Your task to perform on an android device: turn on javascript in the chrome app Image 0: 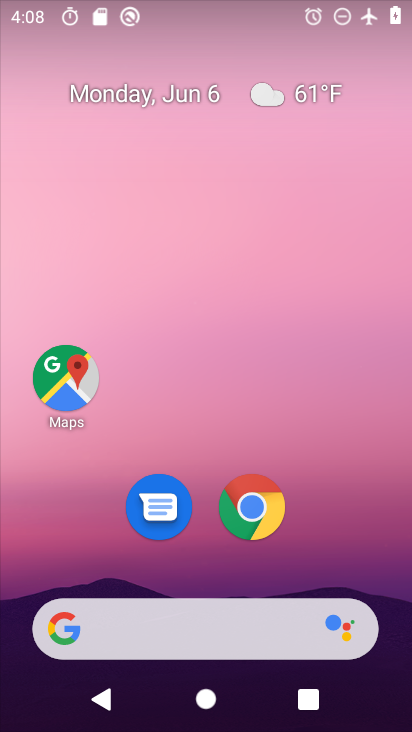
Step 0: click (242, 526)
Your task to perform on an android device: turn on javascript in the chrome app Image 1: 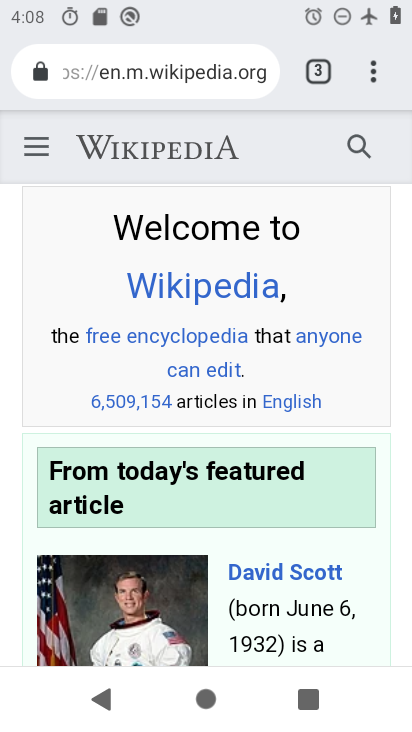
Step 1: click (370, 69)
Your task to perform on an android device: turn on javascript in the chrome app Image 2: 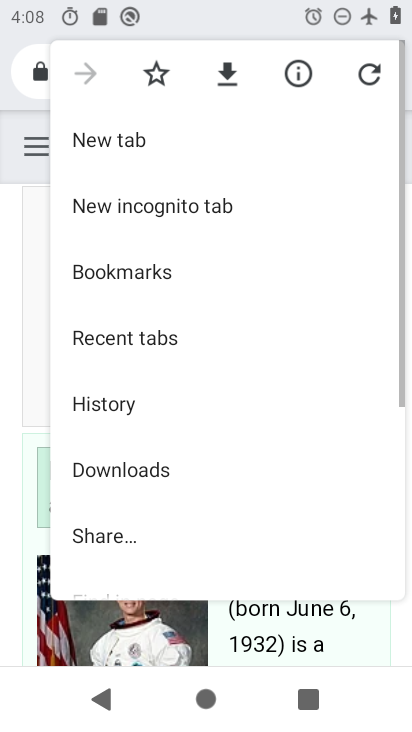
Step 2: drag from (161, 494) to (189, 247)
Your task to perform on an android device: turn on javascript in the chrome app Image 3: 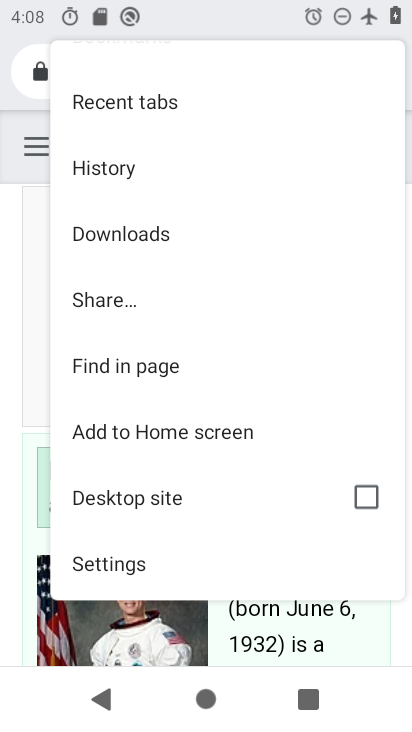
Step 3: click (128, 557)
Your task to perform on an android device: turn on javascript in the chrome app Image 4: 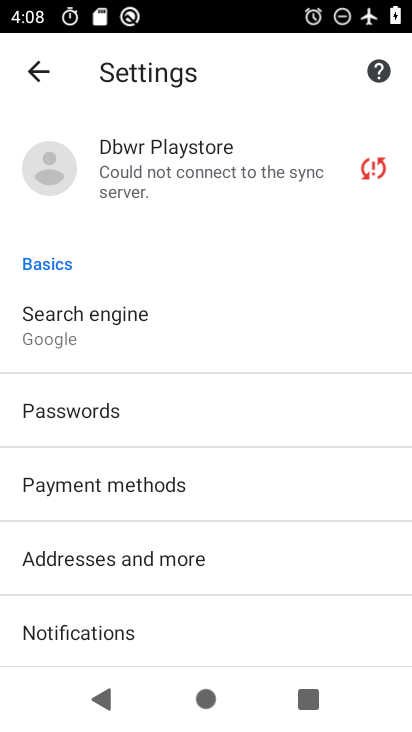
Step 4: drag from (159, 594) to (175, 286)
Your task to perform on an android device: turn on javascript in the chrome app Image 5: 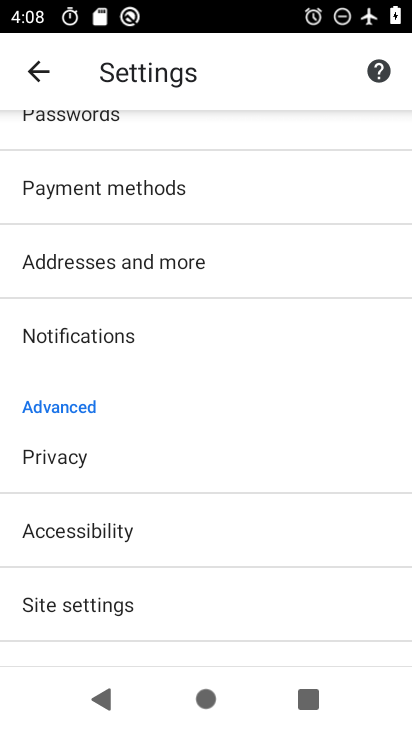
Step 5: drag from (164, 614) to (166, 477)
Your task to perform on an android device: turn on javascript in the chrome app Image 6: 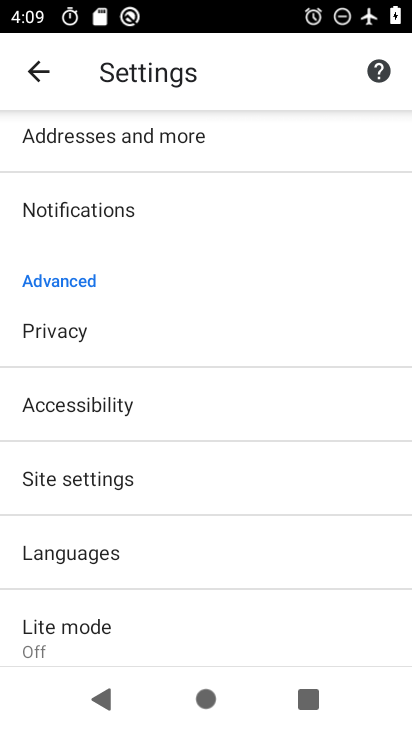
Step 6: drag from (127, 629) to (170, 426)
Your task to perform on an android device: turn on javascript in the chrome app Image 7: 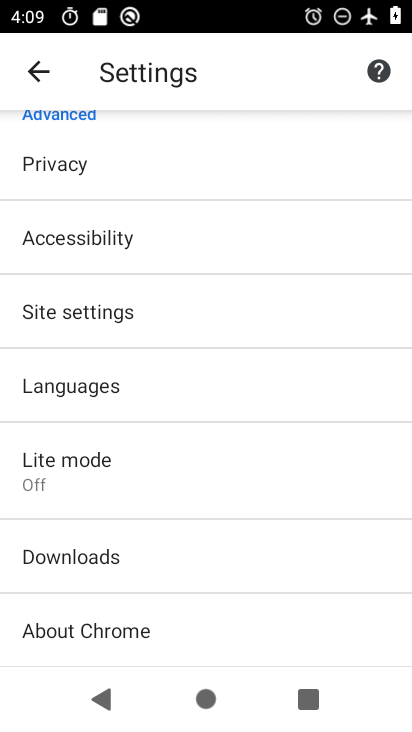
Step 7: drag from (132, 537) to (165, 347)
Your task to perform on an android device: turn on javascript in the chrome app Image 8: 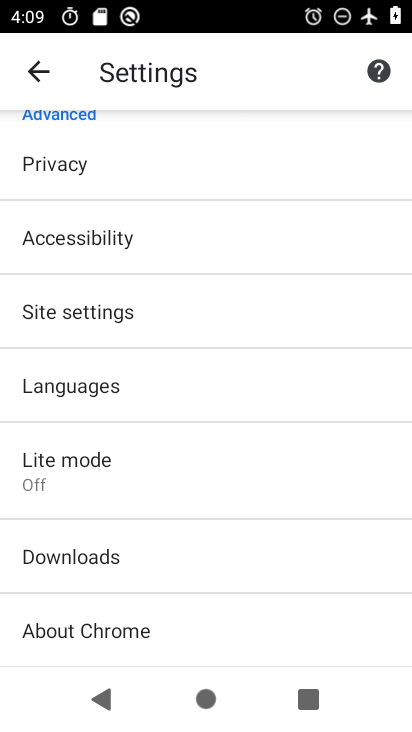
Step 8: drag from (179, 544) to (188, 334)
Your task to perform on an android device: turn on javascript in the chrome app Image 9: 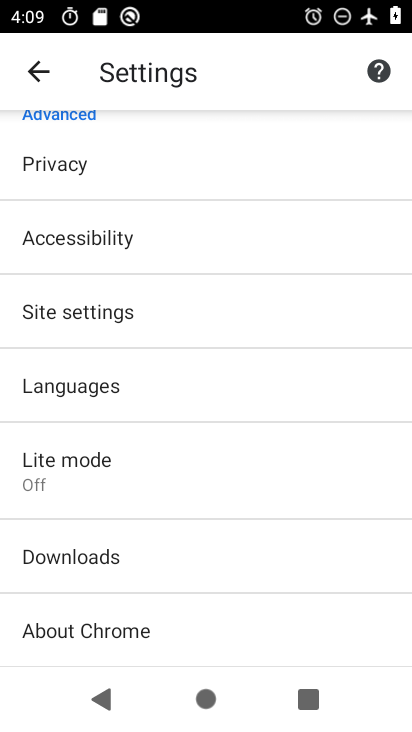
Step 9: click (167, 331)
Your task to perform on an android device: turn on javascript in the chrome app Image 10: 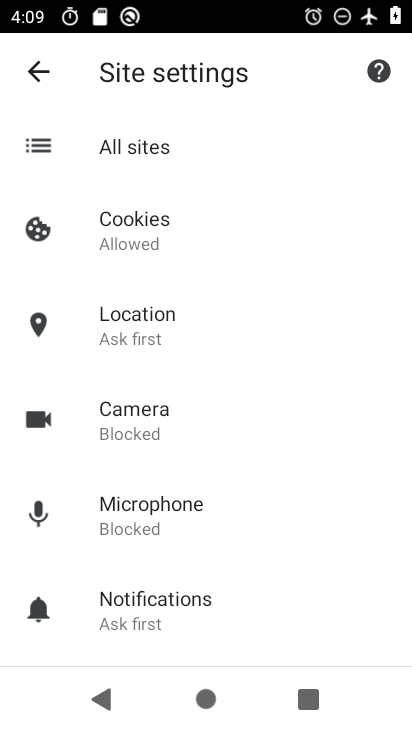
Step 10: drag from (198, 582) to (240, 337)
Your task to perform on an android device: turn on javascript in the chrome app Image 11: 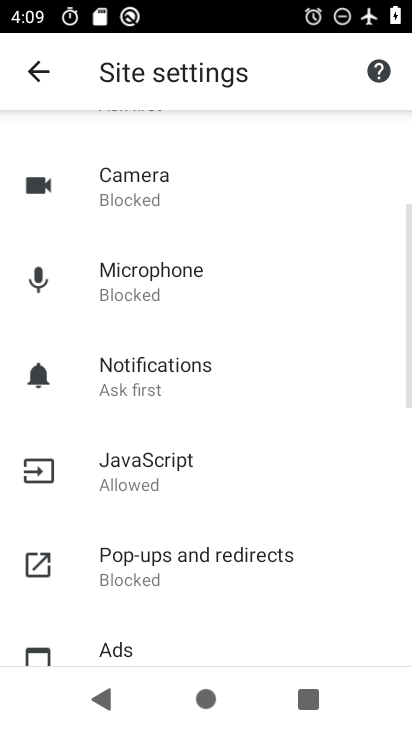
Step 11: click (205, 479)
Your task to perform on an android device: turn on javascript in the chrome app Image 12: 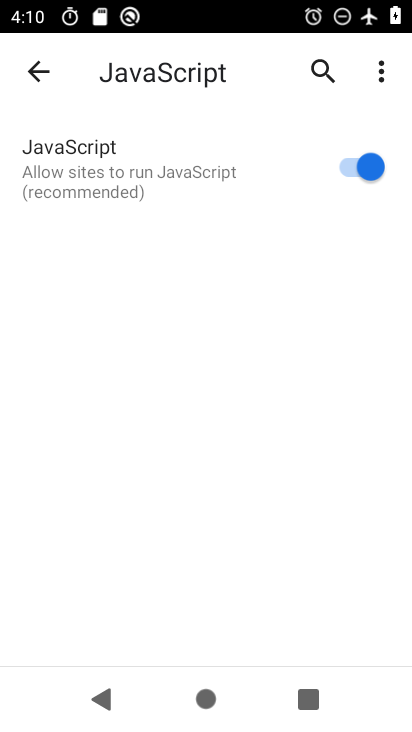
Step 12: task complete